Your task to perform on an android device: Do I have any events today? Image 0: 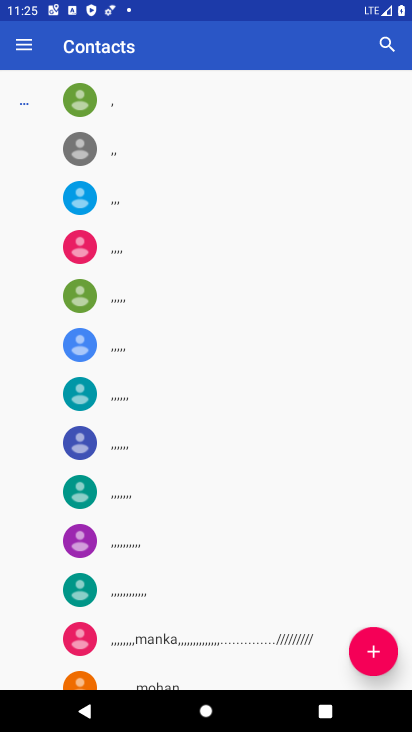
Step 0: press home button
Your task to perform on an android device: Do I have any events today? Image 1: 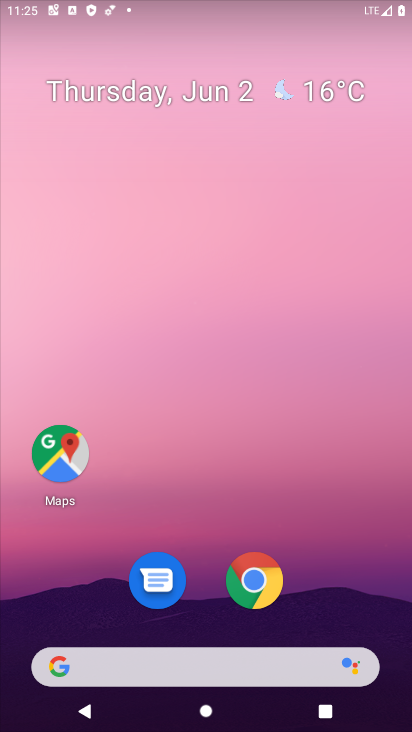
Step 1: drag from (170, 611) to (189, 350)
Your task to perform on an android device: Do I have any events today? Image 2: 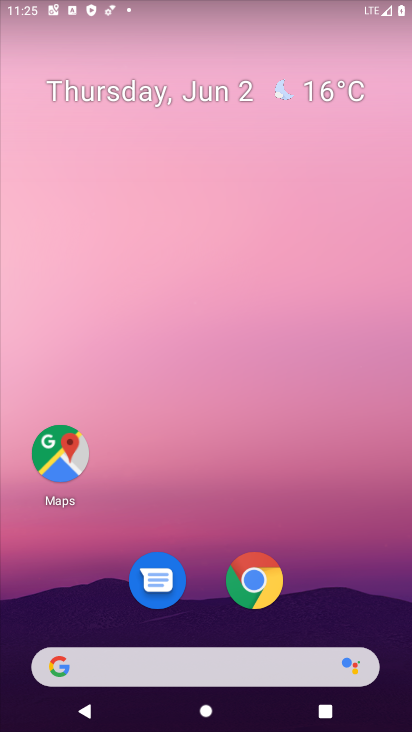
Step 2: drag from (201, 650) to (304, 271)
Your task to perform on an android device: Do I have any events today? Image 3: 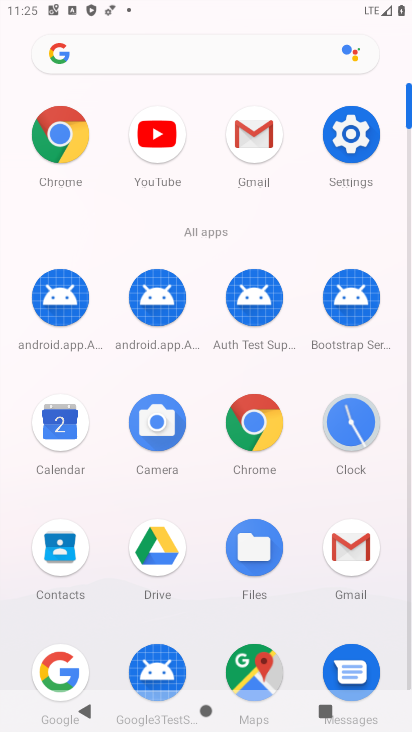
Step 3: click (44, 424)
Your task to perform on an android device: Do I have any events today? Image 4: 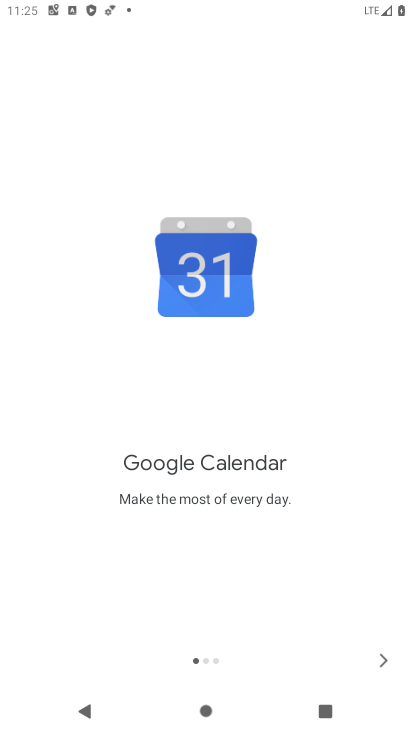
Step 4: click (392, 650)
Your task to perform on an android device: Do I have any events today? Image 5: 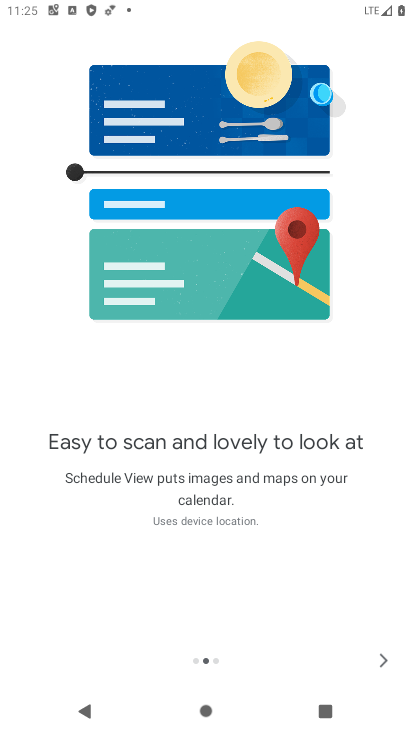
Step 5: click (394, 665)
Your task to perform on an android device: Do I have any events today? Image 6: 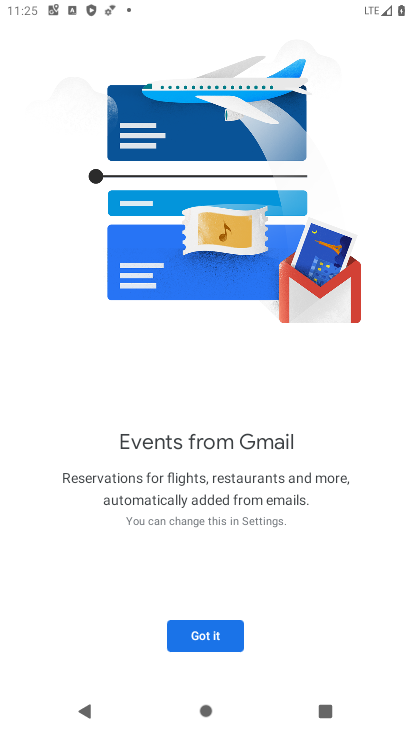
Step 6: click (180, 631)
Your task to perform on an android device: Do I have any events today? Image 7: 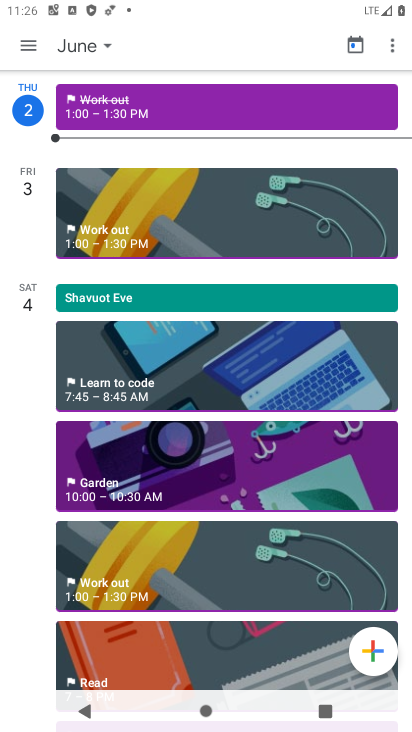
Step 7: task complete